Your task to perform on an android device: Open the Play Movies app and select the watchlist tab. Image 0: 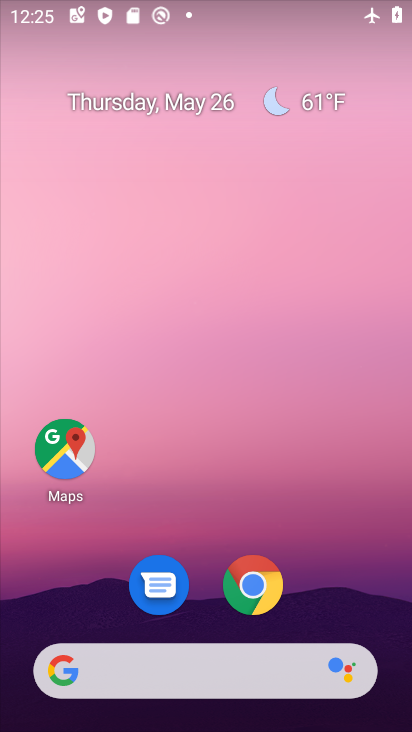
Step 0: drag from (189, 522) to (259, 4)
Your task to perform on an android device: Open the Play Movies app and select the watchlist tab. Image 1: 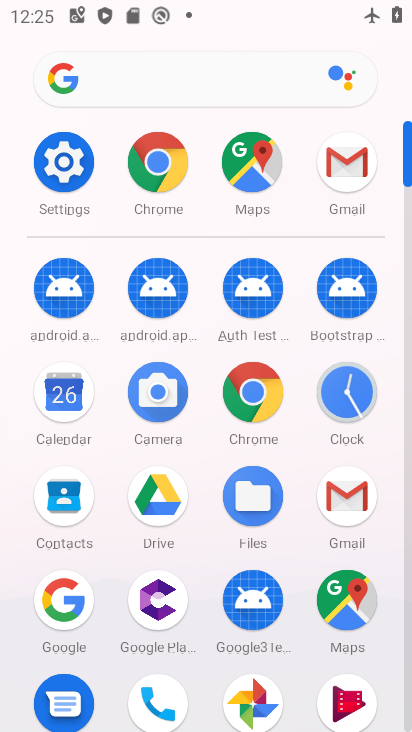
Step 1: drag from (294, 565) to (310, 374)
Your task to perform on an android device: Open the Play Movies app and select the watchlist tab. Image 2: 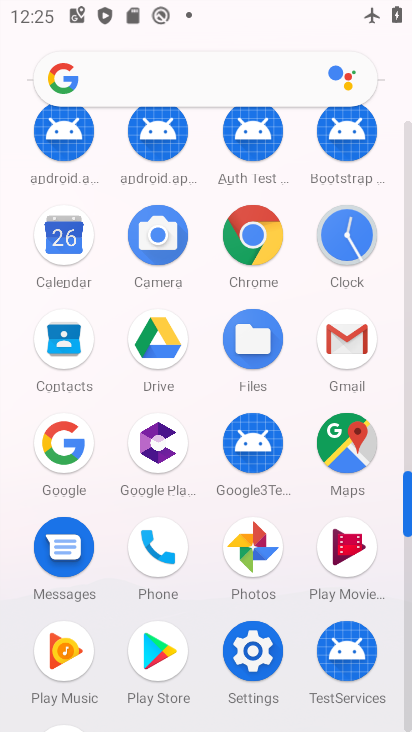
Step 2: click (350, 538)
Your task to perform on an android device: Open the Play Movies app and select the watchlist tab. Image 3: 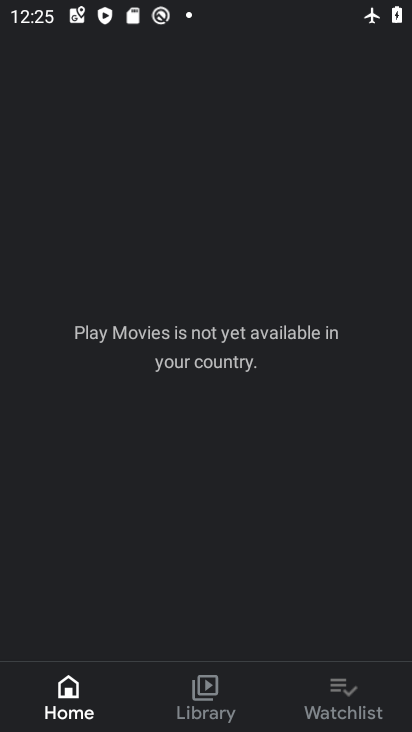
Step 3: click (339, 689)
Your task to perform on an android device: Open the Play Movies app and select the watchlist tab. Image 4: 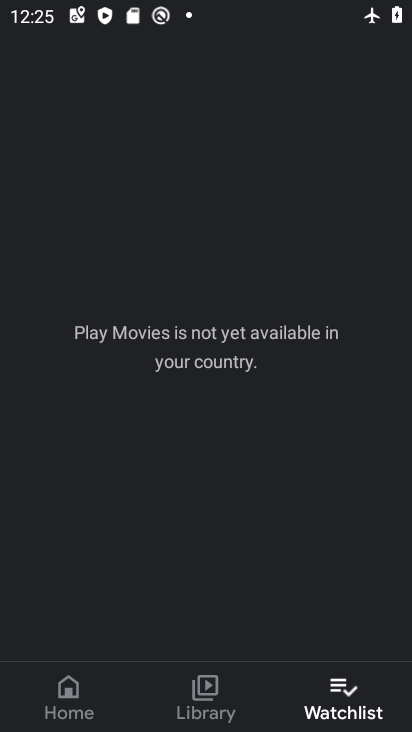
Step 4: task complete